Your task to perform on an android device: turn off improve location accuracy Image 0: 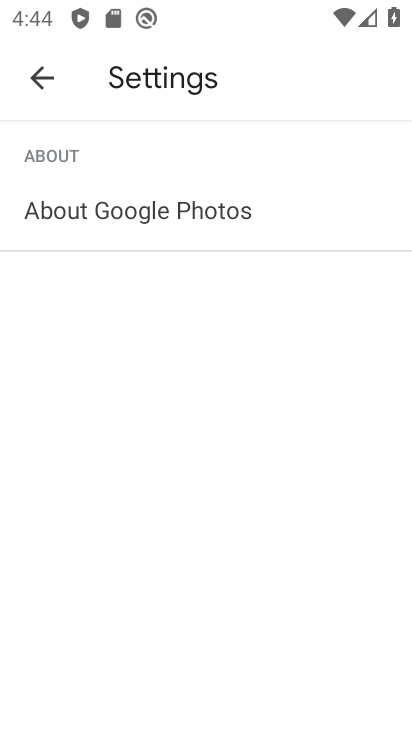
Step 0: press home button
Your task to perform on an android device: turn off improve location accuracy Image 1: 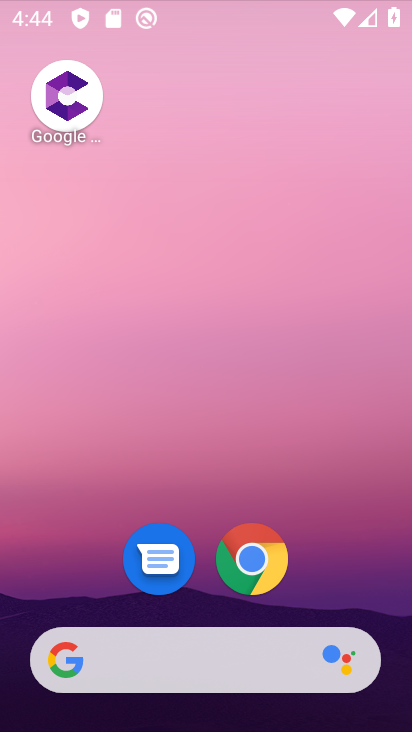
Step 1: drag from (338, 689) to (321, 42)
Your task to perform on an android device: turn off improve location accuracy Image 2: 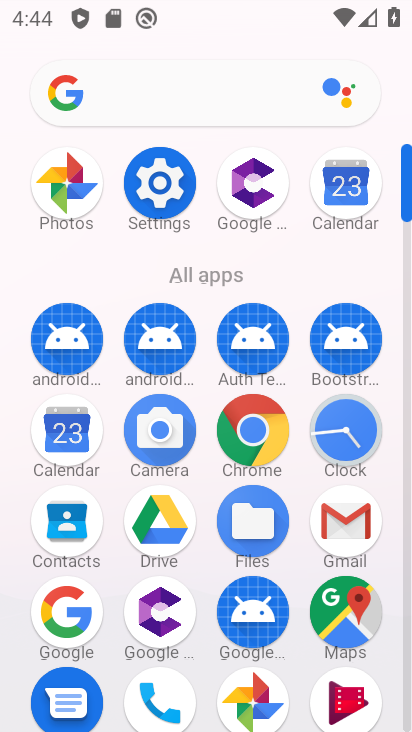
Step 2: click (145, 200)
Your task to perform on an android device: turn off improve location accuracy Image 3: 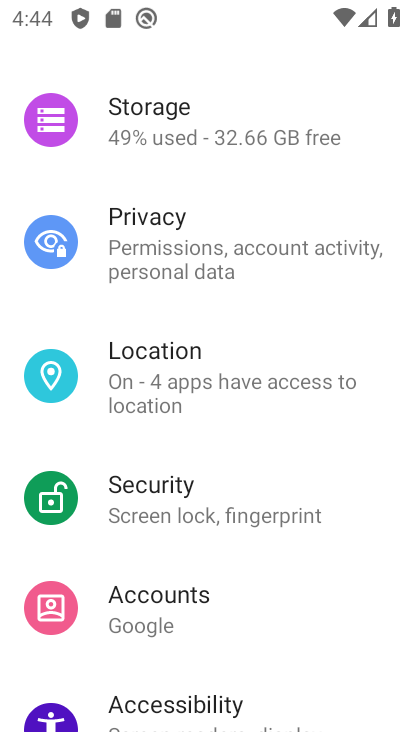
Step 3: drag from (223, 212) to (235, 346)
Your task to perform on an android device: turn off improve location accuracy Image 4: 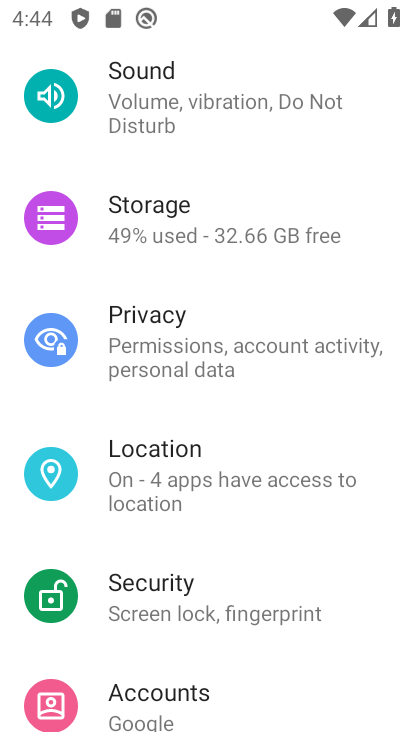
Step 4: click (242, 476)
Your task to perform on an android device: turn off improve location accuracy Image 5: 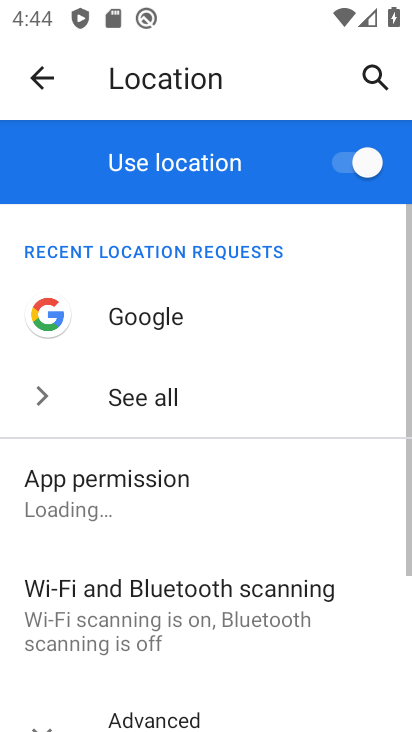
Step 5: click (343, 158)
Your task to perform on an android device: turn off improve location accuracy Image 6: 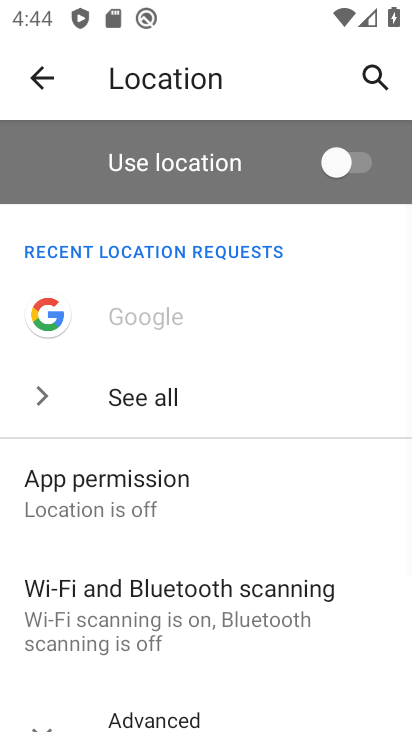
Step 6: task complete